Your task to perform on an android device: check android version Image 0: 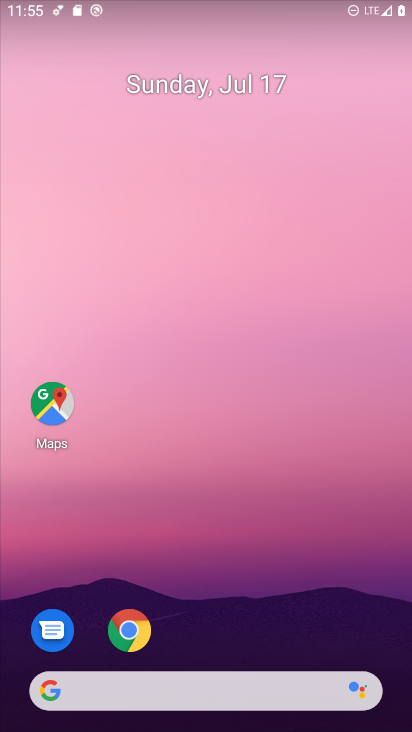
Step 0: drag from (177, 608) to (218, 9)
Your task to perform on an android device: check android version Image 1: 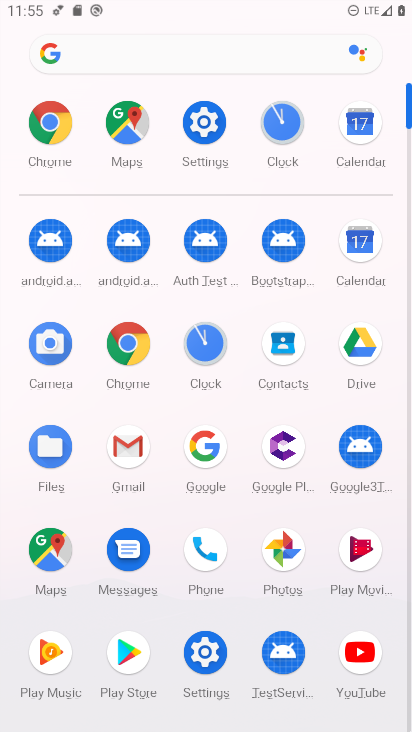
Step 1: click (208, 122)
Your task to perform on an android device: check android version Image 2: 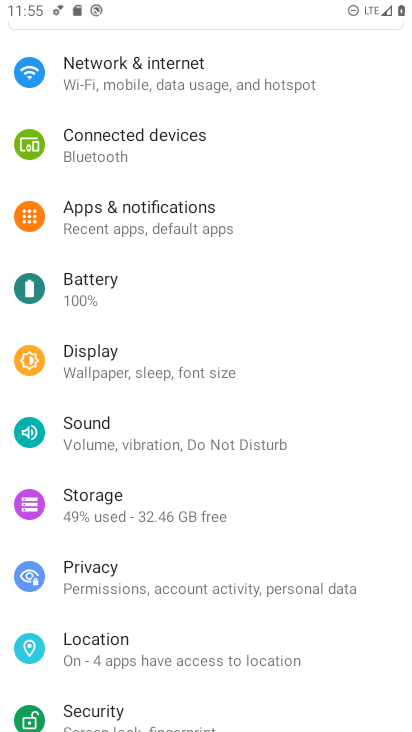
Step 2: drag from (165, 664) to (140, 286)
Your task to perform on an android device: check android version Image 3: 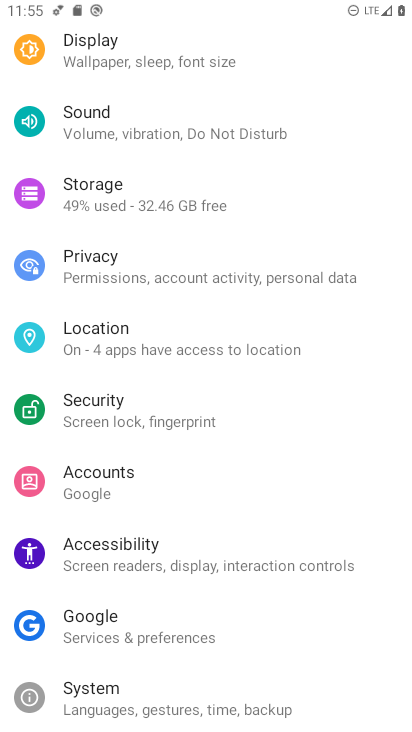
Step 3: drag from (126, 555) to (135, 349)
Your task to perform on an android device: check android version Image 4: 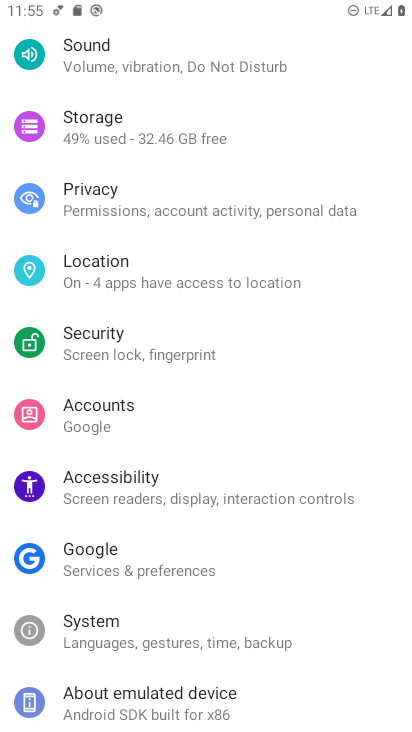
Step 4: click (86, 711)
Your task to perform on an android device: check android version Image 5: 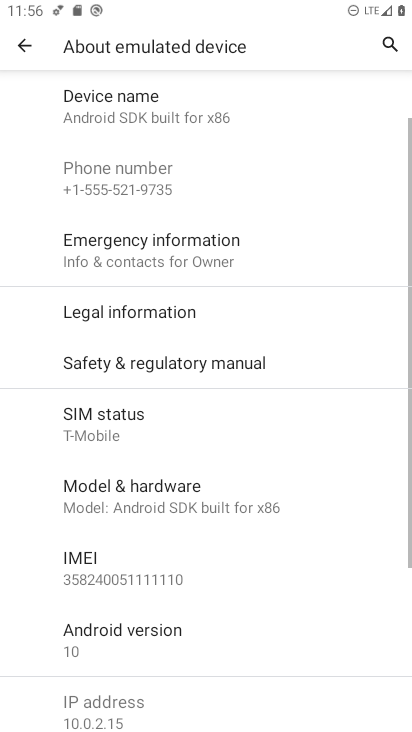
Step 5: click (119, 642)
Your task to perform on an android device: check android version Image 6: 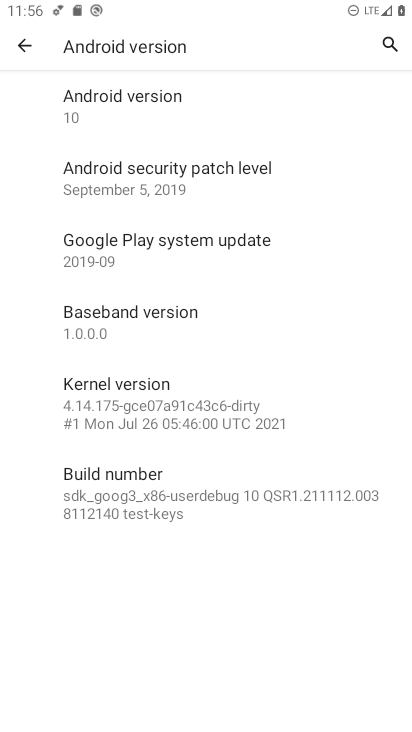
Step 6: task complete